Your task to perform on an android device: change keyboard looks Image 0: 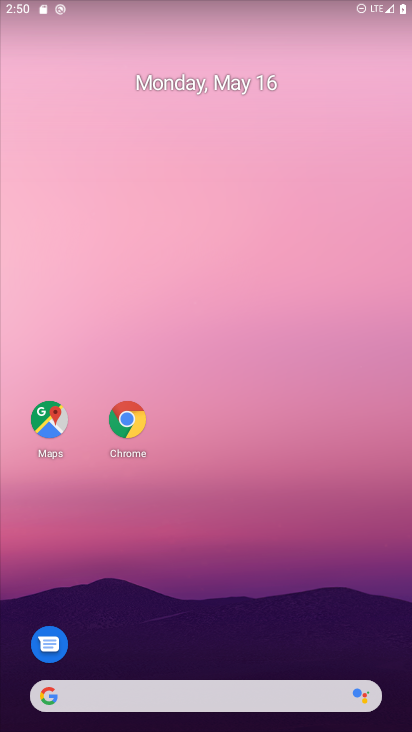
Step 0: drag from (226, 624) to (245, 157)
Your task to perform on an android device: change keyboard looks Image 1: 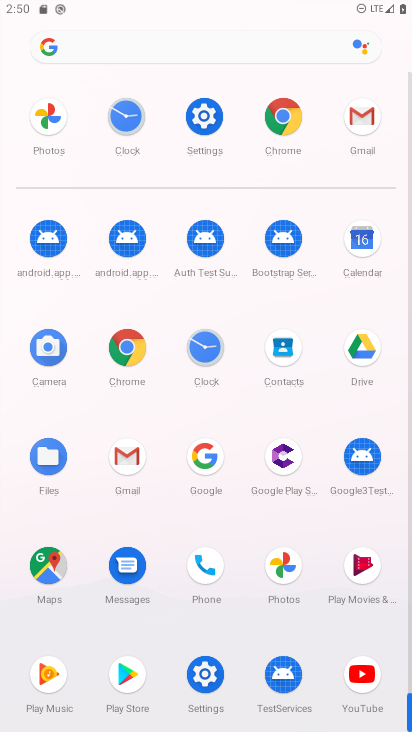
Step 1: click (193, 121)
Your task to perform on an android device: change keyboard looks Image 2: 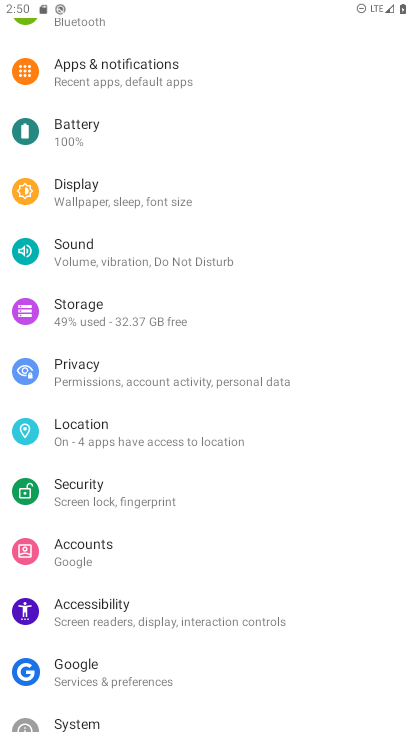
Step 2: drag from (221, 633) to (243, 15)
Your task to perform on an android device: change keyboard looks Image 3: 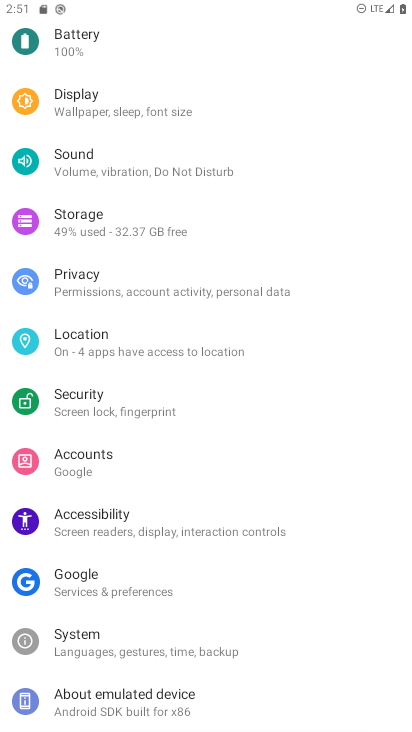
Step 3: drag from (220, 590) to (261, 236)
Your task to perform on an android device: change keyboard looks Image 4: 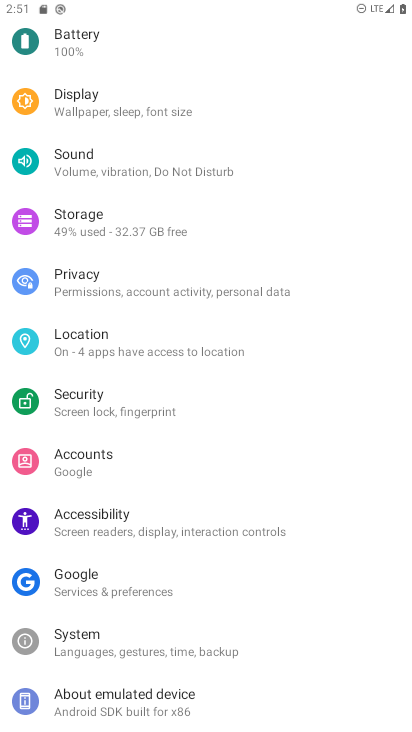
Step 4: click (131, 656)
Your task to perform on an android device: change keyboard looks Image 5: 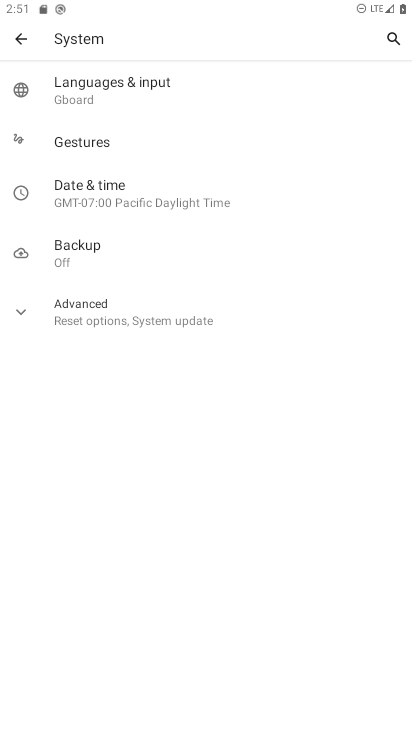
Step 5: click (104, 104)
Your task to perform on an android device: change keyboard looks Image 6: 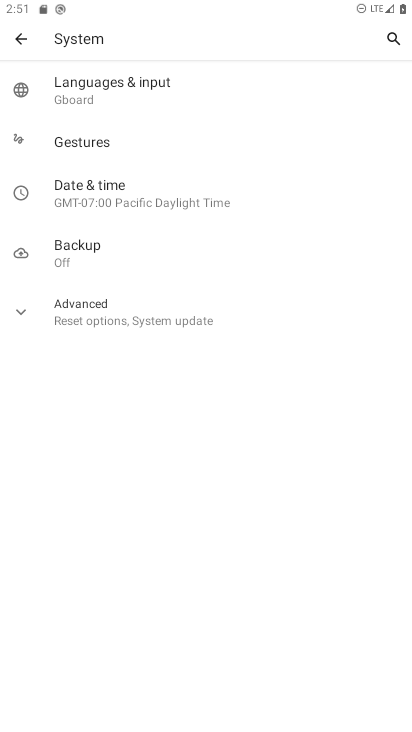
Step 6: click (104, 104)
Your task to perform on an android device: change keyboard looks Image 7: 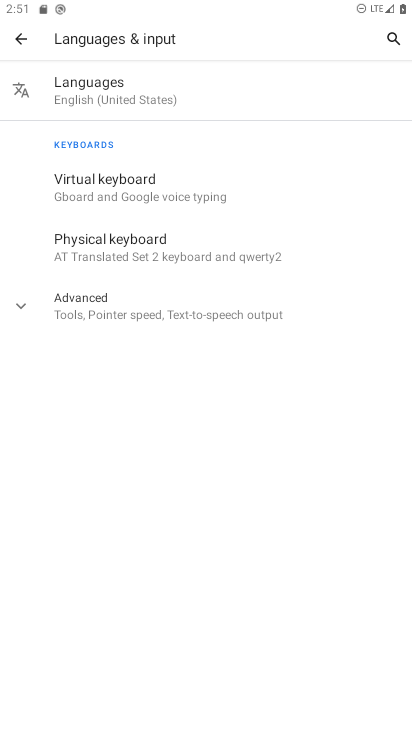
Step 7: click (139, 194)
Your task to perform on an android device: change keyboard looks Image 8: 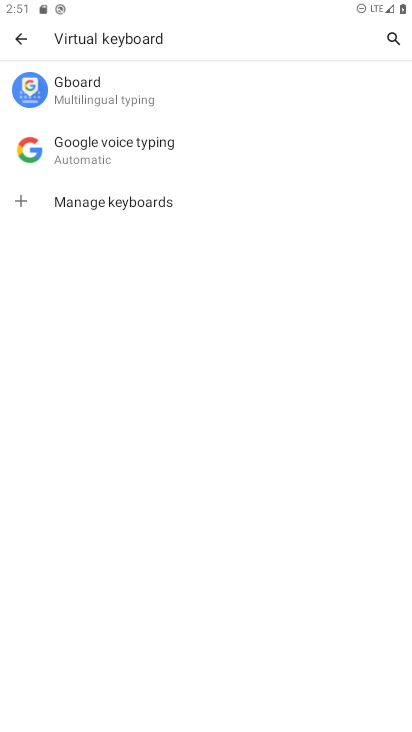
Step 8: click (180, 94)
Your task to perform on an android device: change keyboard looks Image 9: 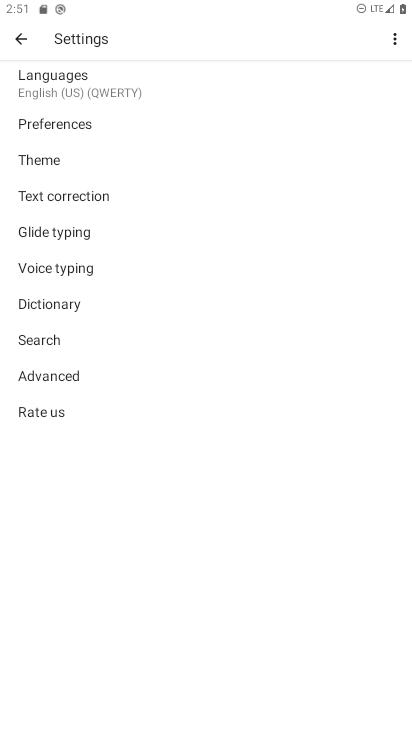
Step 9: click (53, 168)
Your task to perform on an android device: change keyboard looks Image 10: 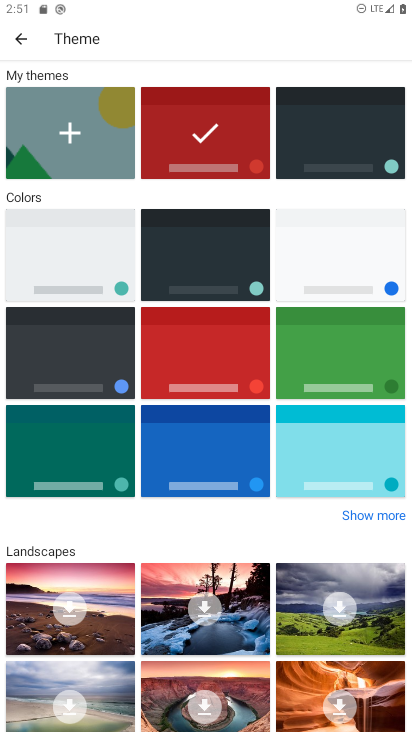
Step 10: click (83, 373)
Your task to perform on an android device: change keyboard looks Image 11: 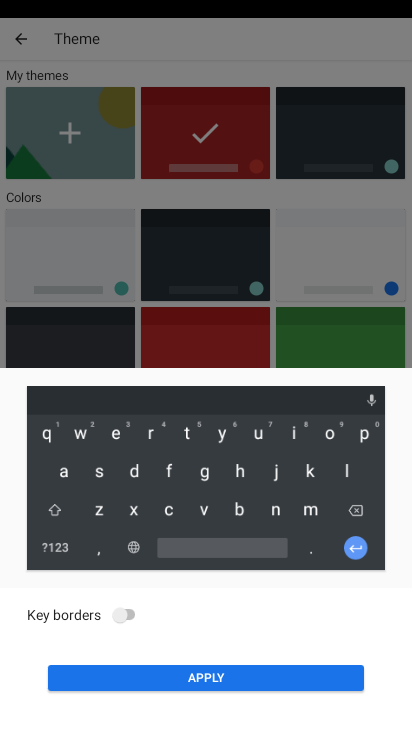
Step 11: click (194, 672)
Your task to perform on an android device: change keyboard looks Image 12: 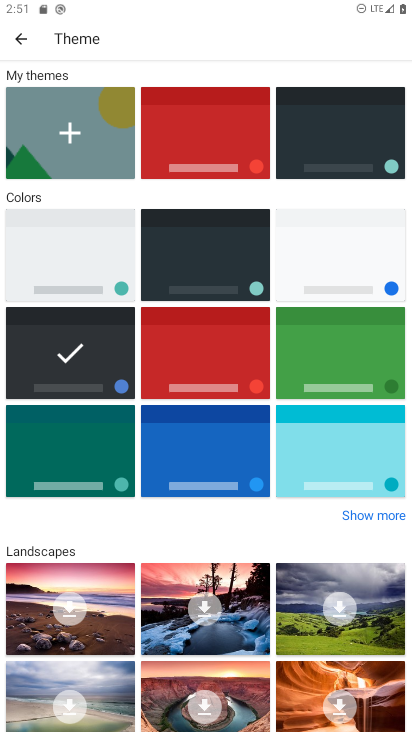
Step 12: task complete